Your task to perform on an android device: Open Google Chrome and open the bookmarks view Image 0: 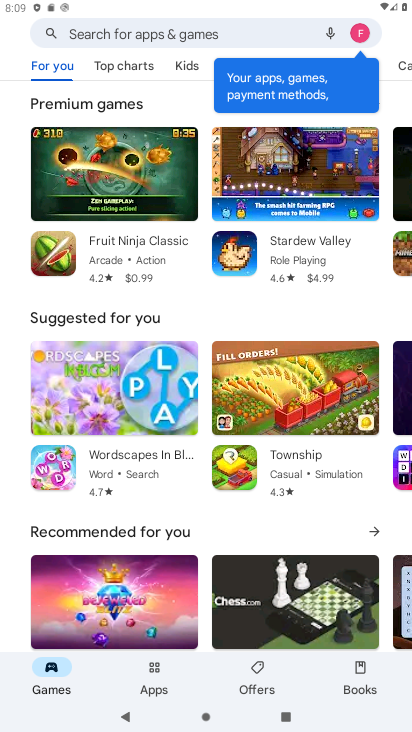
Step 0: press home button
Your task to perform on an android device: Open Google Chrome and open the bookmarks view Image 1: 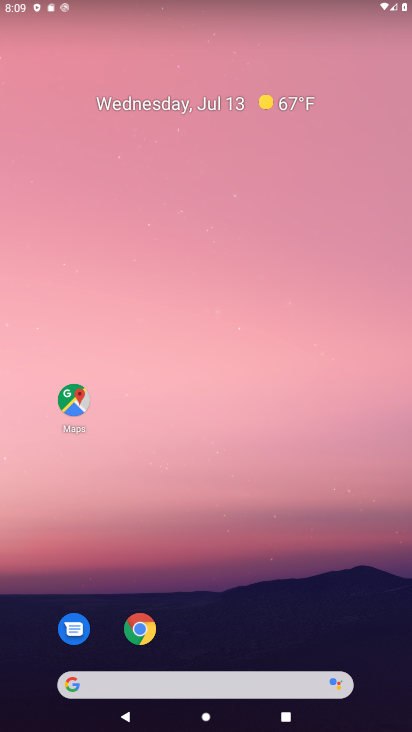
Step 1: click (151, 629)
Your task to perform on an android device: Open Google Chrome and open the bookmarks view Image 2: 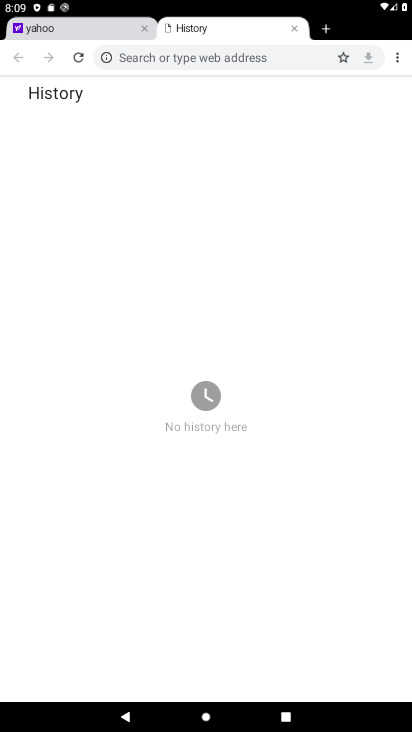
Step 2: click (399, 55)
Your task to perform on an android device: Open Google Chrome and open the bookmarks view Image 3: 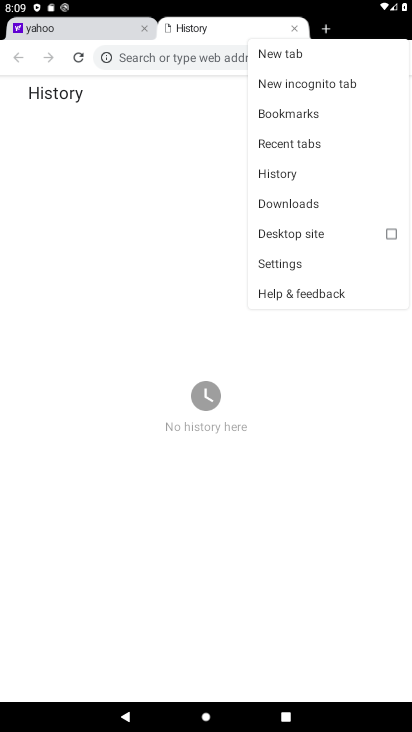
Step 3: click (313, 116)
Your task to perform on an android device: Open Google Chrome and open the bookmarks view Image 4: 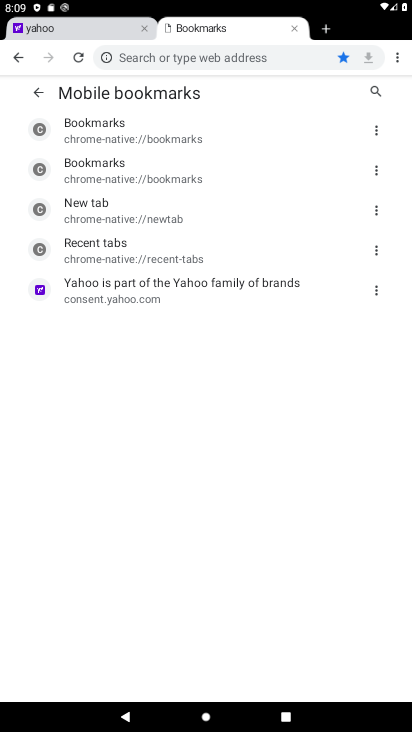
Step 4: task complete